Your task to perform on an android device: delete a single message in the gmail app Image 0: 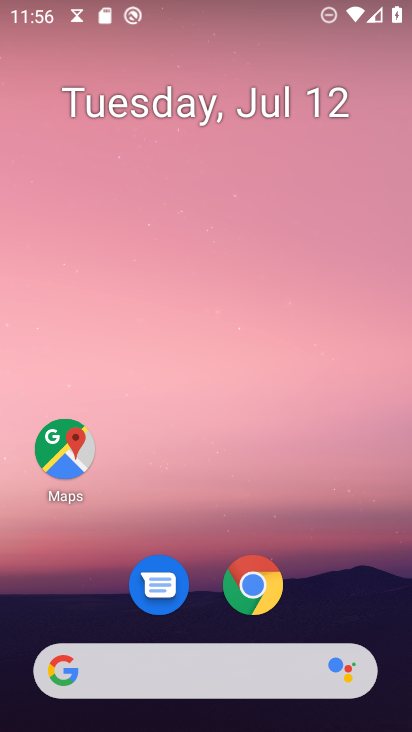
Step 0: drag from (227, 674) to (280, 125)
Your task to perform on an android device: delete a single message in the gmail app Image 1: 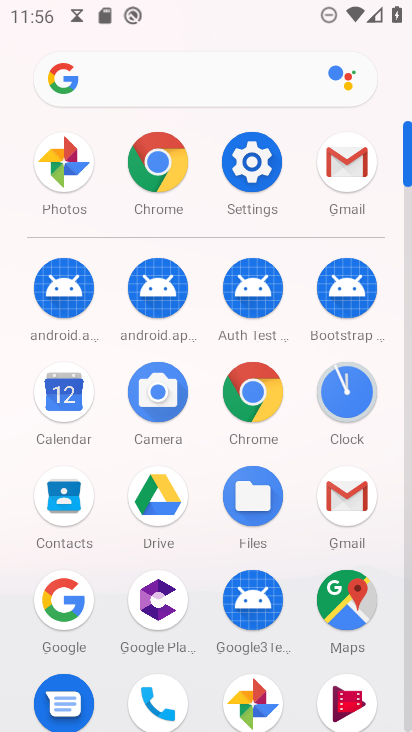
Step 1: click (359, 174)
Your task to perform on an android device: delete a single message in the gmail app Image 2: 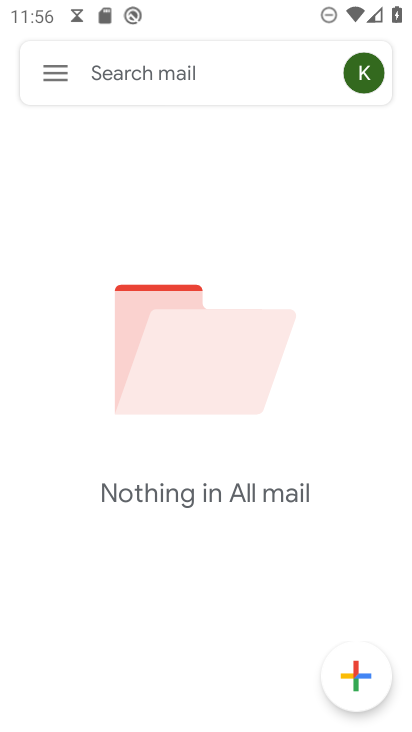
Step 2: task complete